Your task to perform on an android device: Toggle the flashlight Image 0: 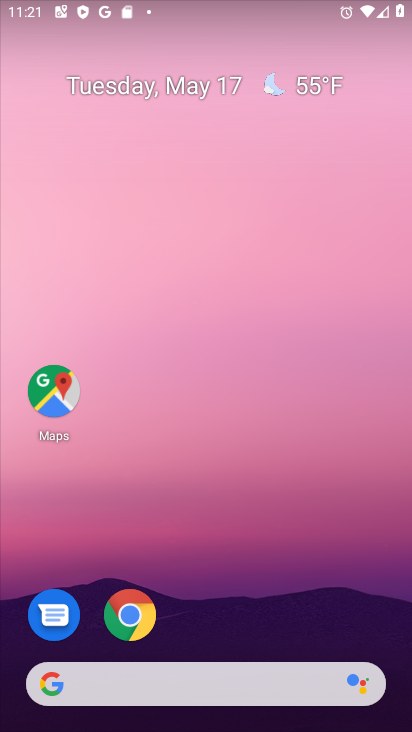
Step 0: drag from (260, 604) to (318, 113)
Your task to perform on an android device: Toggle the flashlight Image 1: 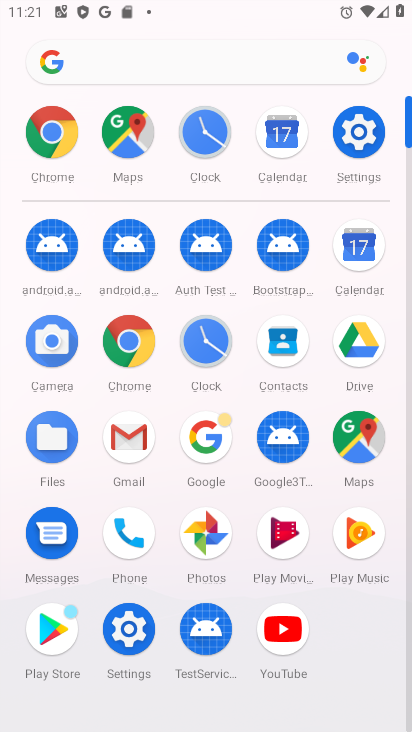
Step 1: click (354, 138)
Your task to perform on an android device: Toggle the flashlight Image 2: 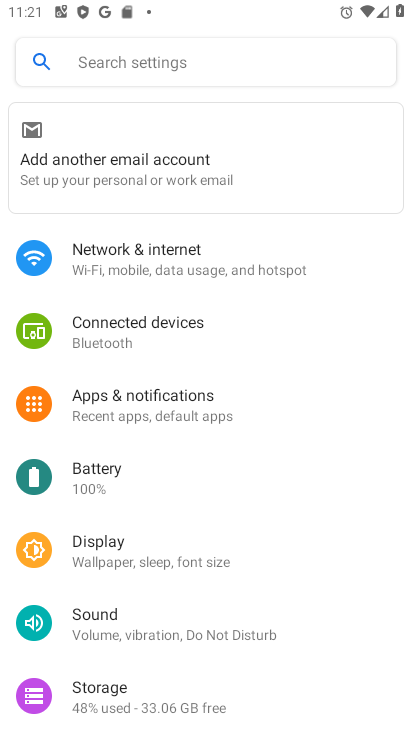
Step 2: drag from (210, 520) to (298, 376)
Your task to perform on an android device: Toggle the flashlight Image 3: 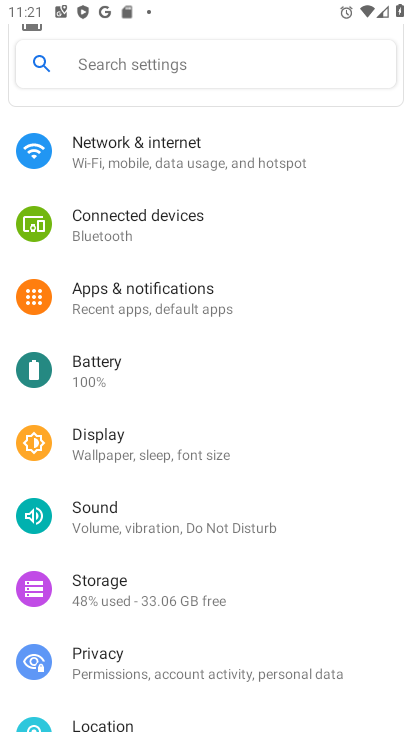
Step 3: click (115, 455)
Your task to perform on an android device: Toggle the flashlight Image 4: 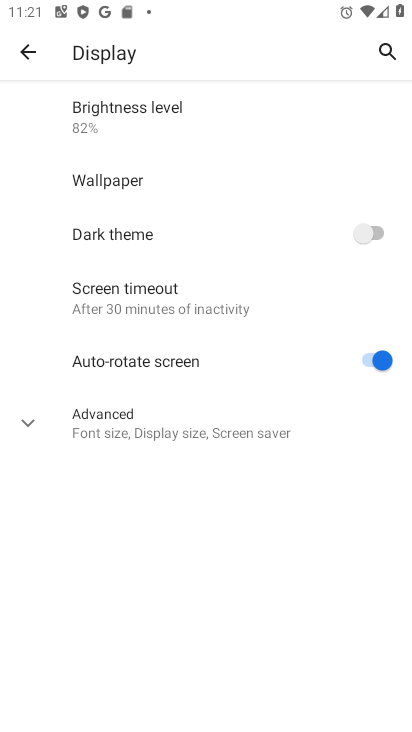
Step 4: task complete